Your task to perform on an android device: change keyboard looks Image 0: 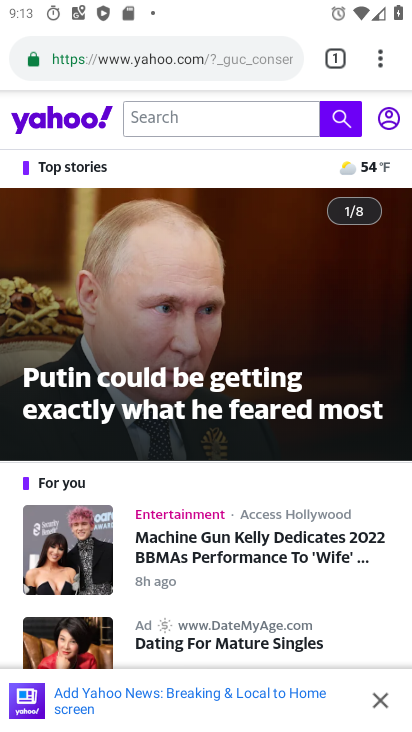
Step 0: press home button
Your task to perform on an android device: change keyboard looks Image 1: 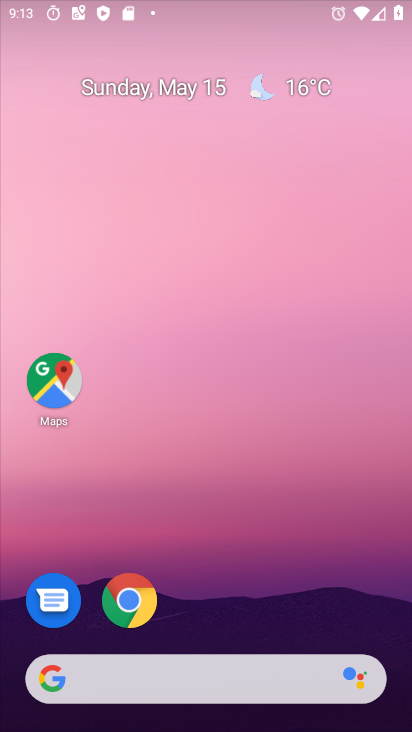
Step 1: drag from (220, 599) to (228, 40)
Your task to perform on an android device: change keyboard looks Image 2: 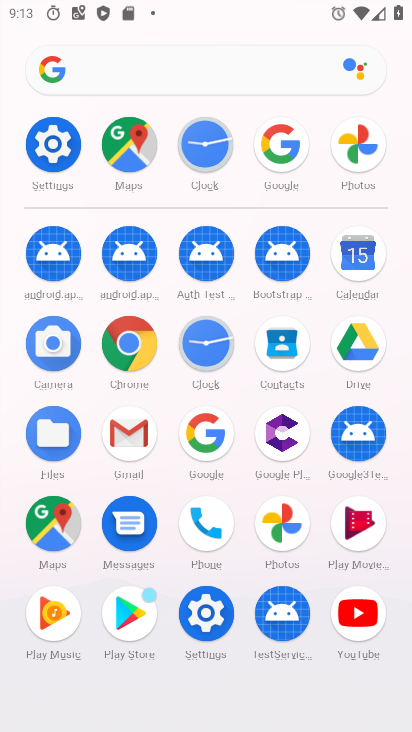
Step 2: click (54, 133)
Your task to perform on an android device: change keyboard looks Image 3: 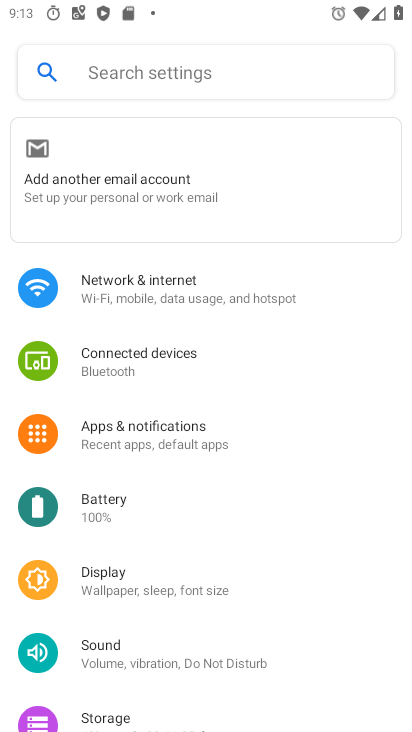
Step 3: drag from (237, 630) to (293, 48)
Your task to perform on an android device: change keyboard looks Image 4: 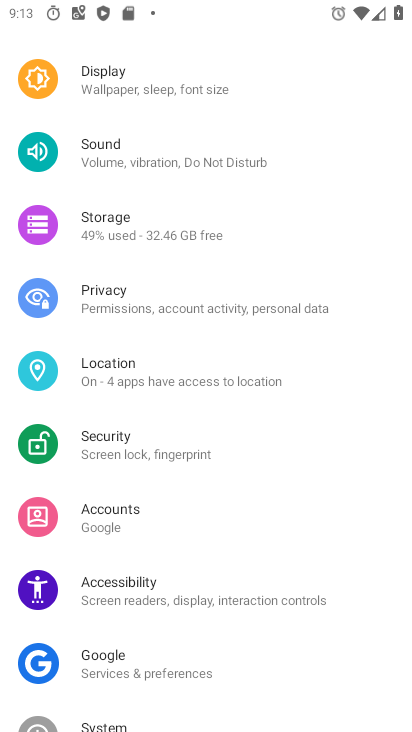
Step 4: drag from (200, 659) to (235, 306)
Your task to perform on an android device: change keyboard looks Image 5: 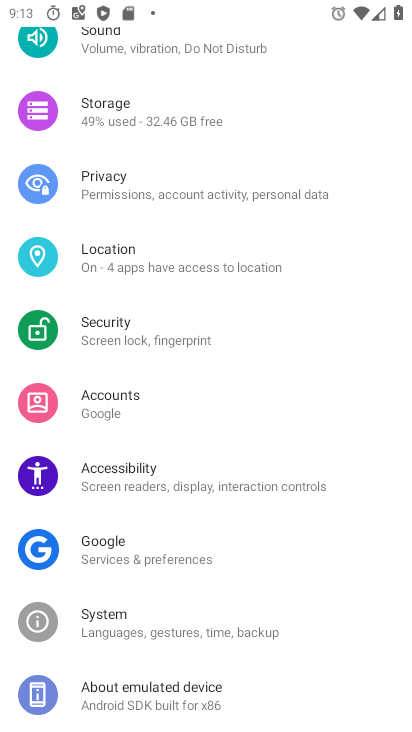
Step 5: click (130, 615)
Your task to perform on an android device: change keyboard looks Image 6: 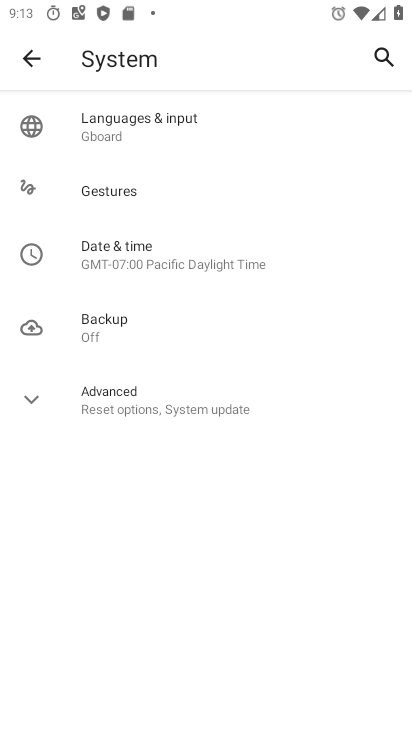
Step 6: click (148, 122)
Your task to perform on an android device: change keyboard looks Image 7: 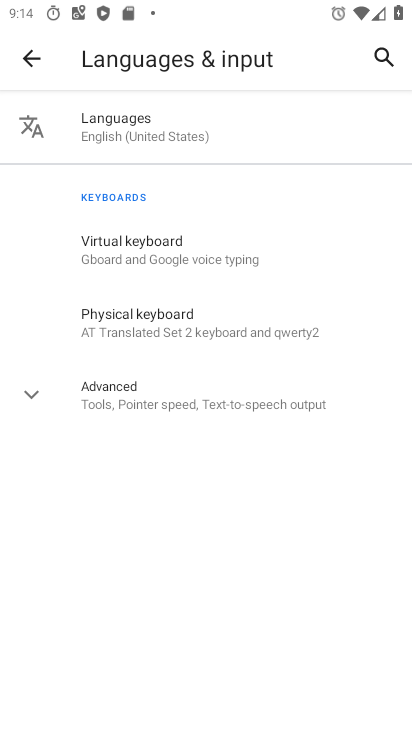
Step 7: click (160, 258)
Your task to perform on an android device: change keyboard looks Image 8: 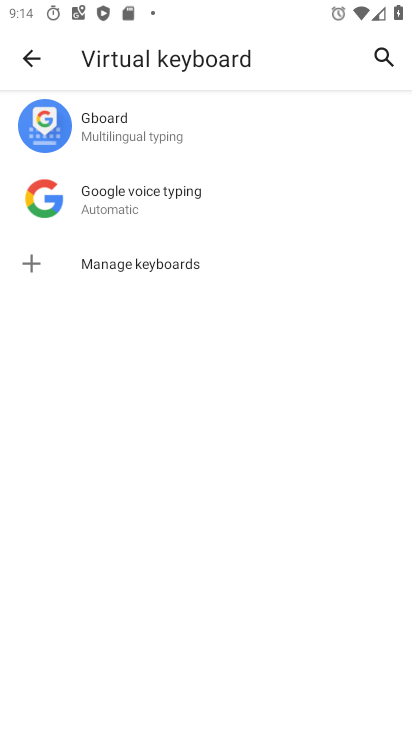
Step 8: click (89, 131)
Your task to perform on an android device: change keyboard looks Image 9: 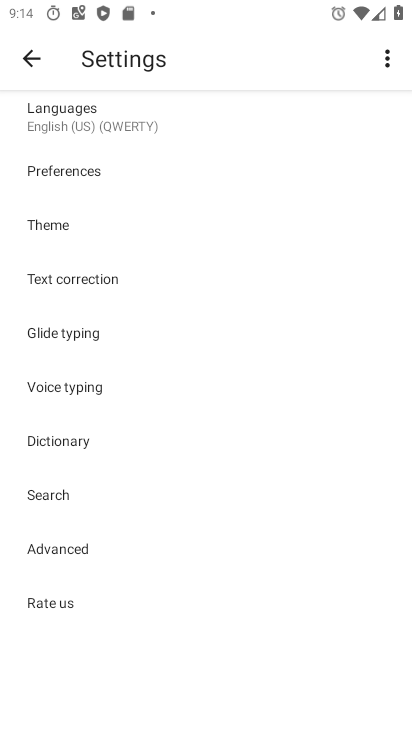
Step 9: click (54, 221)
Your task to perform on an android device: change keyboard looks Image 10: 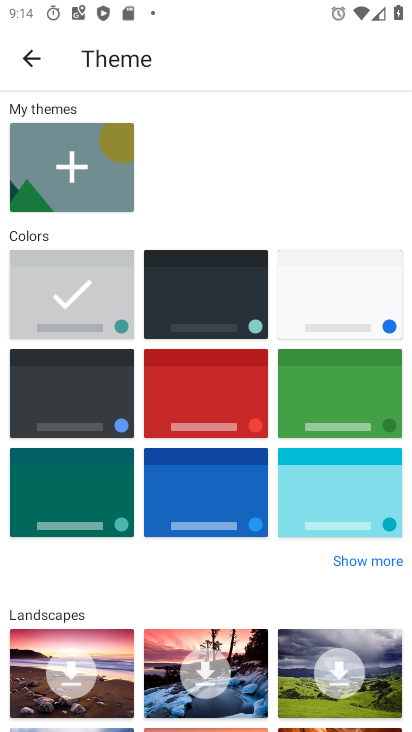
Step 10: click (242, 319)
Your task to perform on an android device: change keyboard looks Image 11: 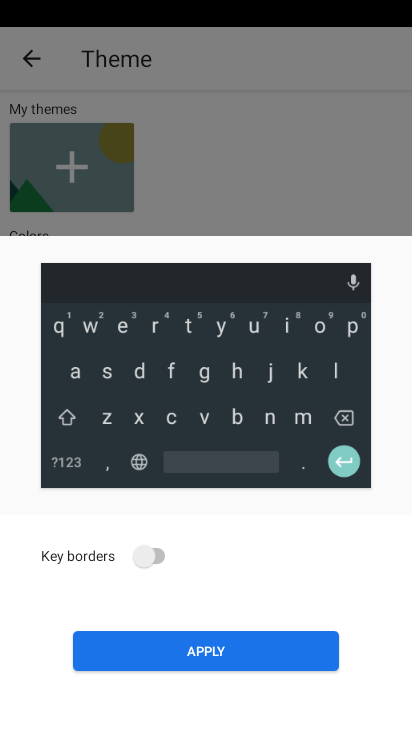
Step 11: click (198, 655)
Your task to perform on an android device: change keyboard looks Image 12: 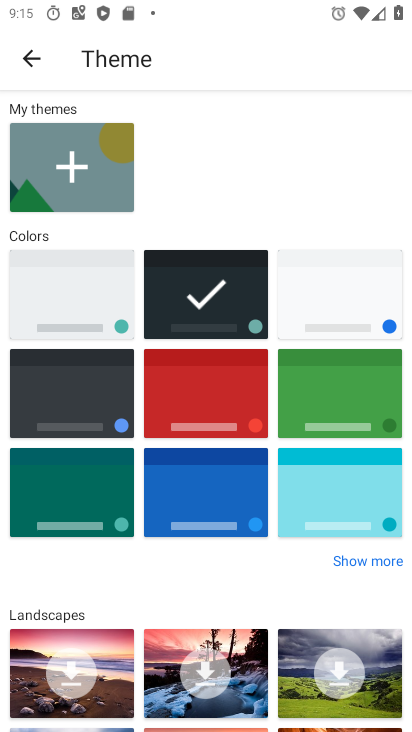
Step 12: task complete